Your task to perform on an android device: check storage Image 0: 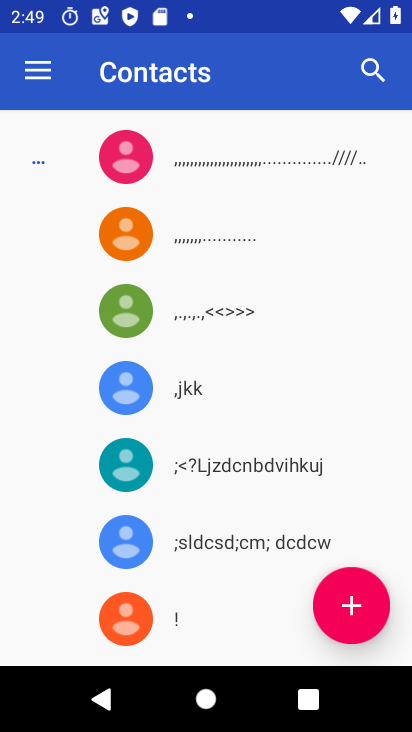
Step 0: press back button
Your task to perform on an android device: check storage Image 1: 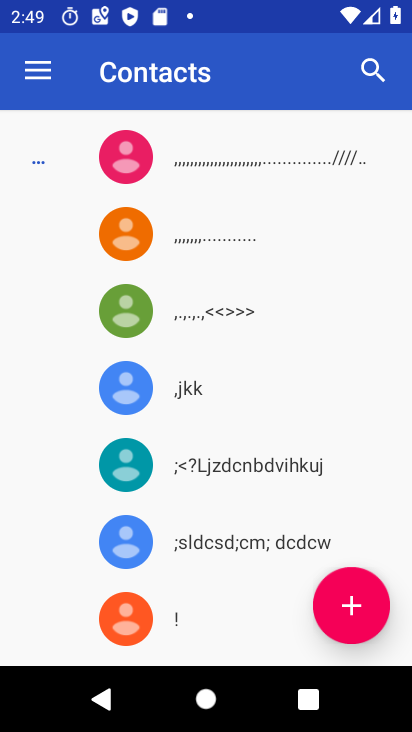
Step 1: type "sea"
Your task to perform on an android device: check storage Image 2: 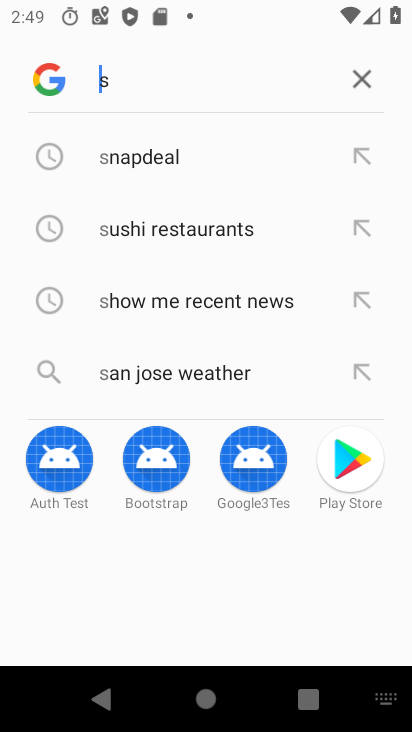
Step 2: press back button
Your task to perform on an android device: check storage Image 3: 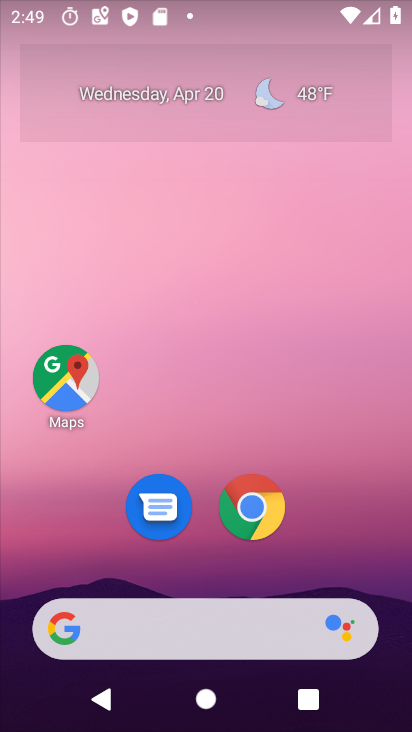
Step 3: drag from (143, 626) to (194, 43)
Your task to perform on an android device: check storage Image 4: 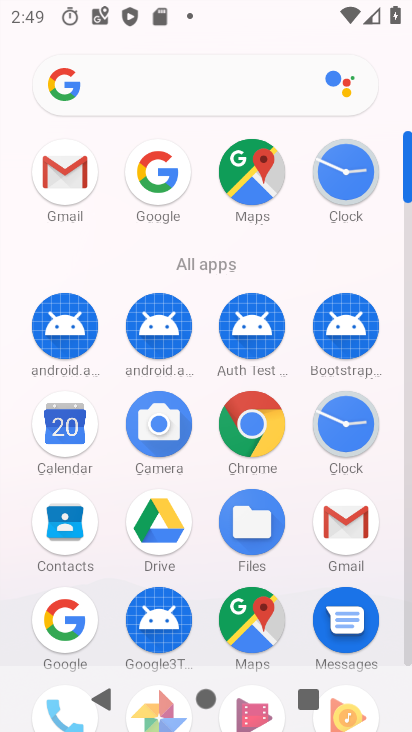
Step 4: drag from (194, 546) to (235, 14)
Your task to perform on an android device: check storage Image 5: 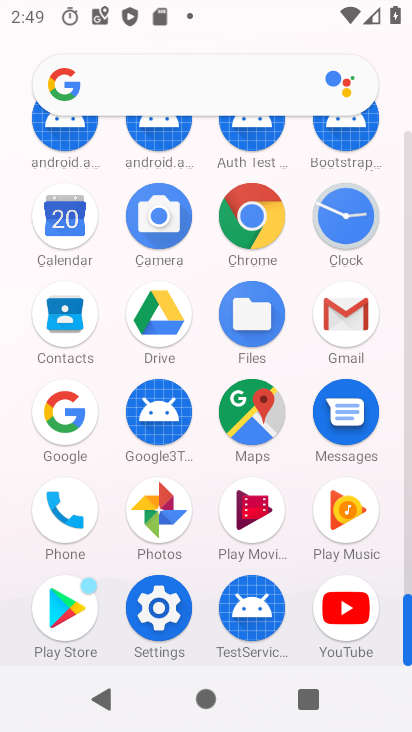
Step 5: click (179, 632)
Your task to perform on an android device: check storage Image 6: 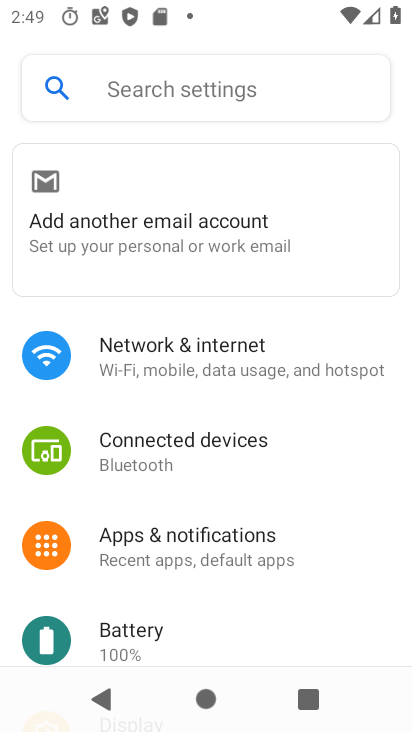
Step 6: drag from (270, 526) to (255, 32)
Your task to perform on an android device: check storage Image 7: 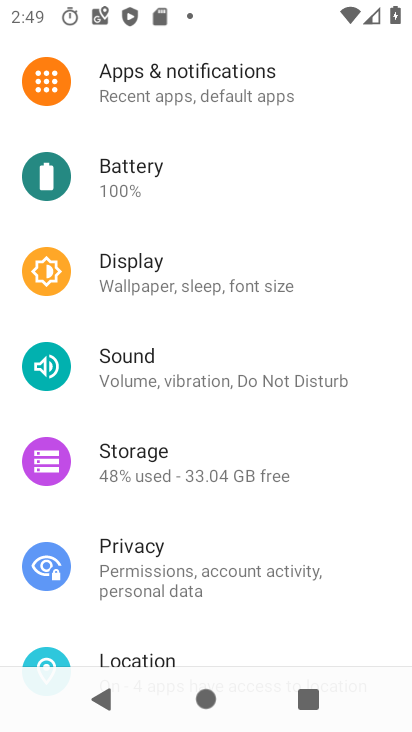
Step 7: click (186, 483)
Your task to perform on an android device: check storage Image 8: 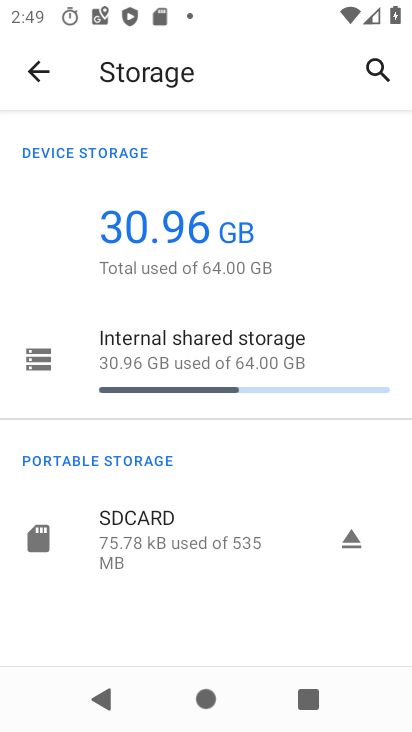
Step 8: click (256, 329)
Your task to perform on an android device: check storage Image 9: 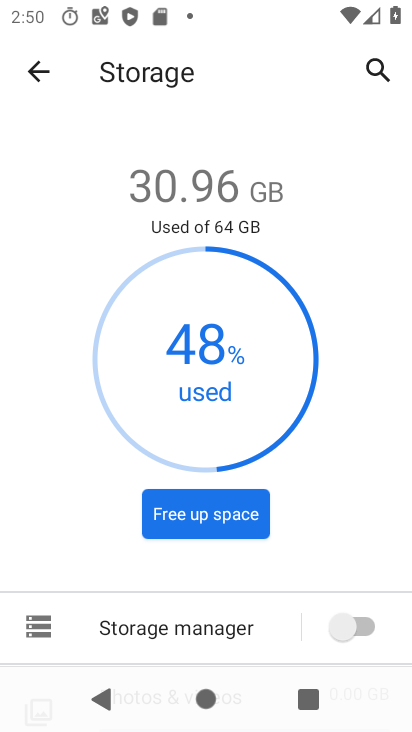
Step 9: task complete